Your task to perform on an android device: move a message to another label in the gmail app Image 0: 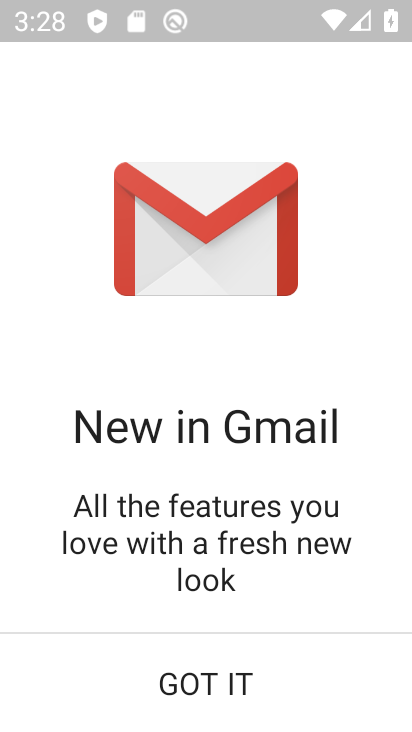
Step 0: click (171, 665)
Your task to perform on an android device: move a message to another label in the gmail app Image 1: 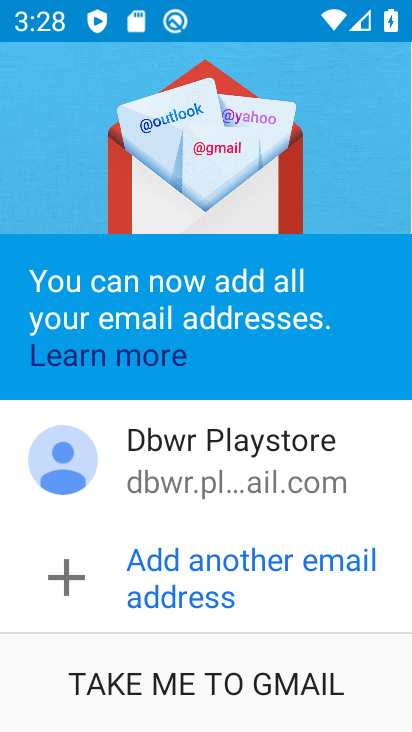
Step 1: click (184, 668)
Your task to perform on an android device: move a message to another label in the gmail app Image 2: 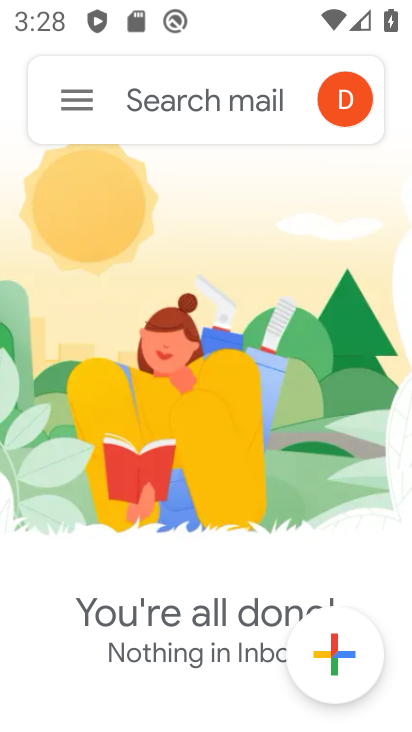
Step 2: click (78, 93)
Your task to perform on an android device: move a message to another label in the gmail app Image 3: 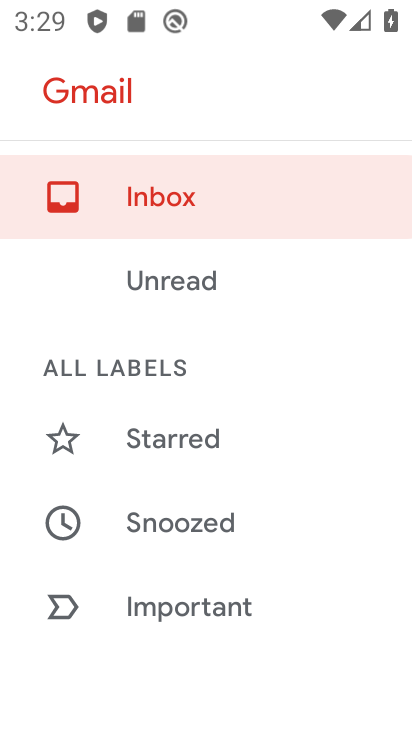
Step 3: drag from (166, 550) to (311, 112)
Your task to perform on an android device: move a message to another label in the gmail app Image 4: 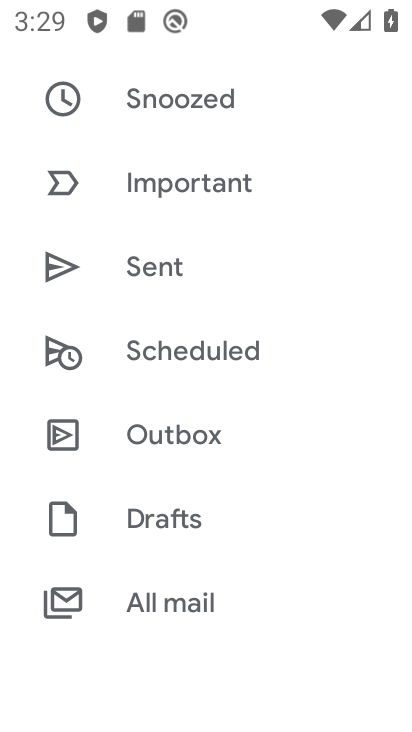
Step 4: click (163, 607)
Your task to perform on an android device: move a message to another label in the gmail app Image 5: 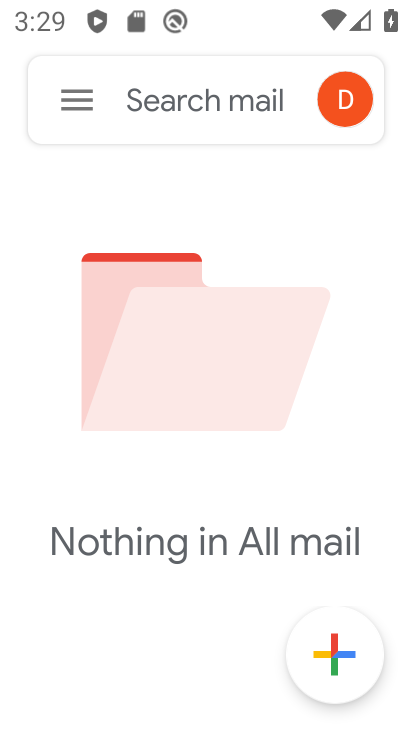
Step 5: task complete